Your task to perform on an android device: check the backup settings in the google photos Image 0: 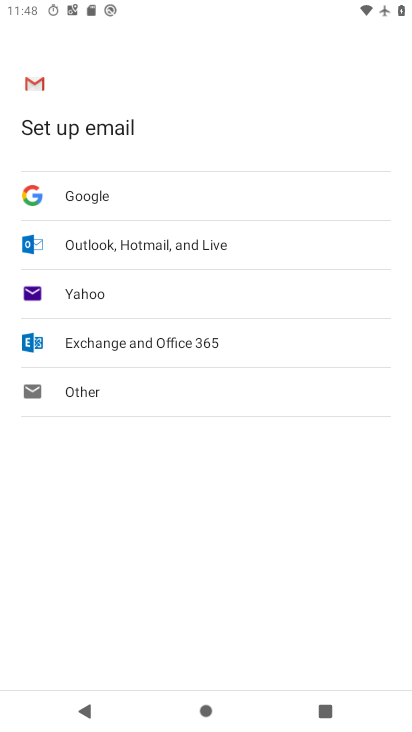
Step 0: press home button
Your task to perform on an android device: check the backup settings in the google photos Image 1: 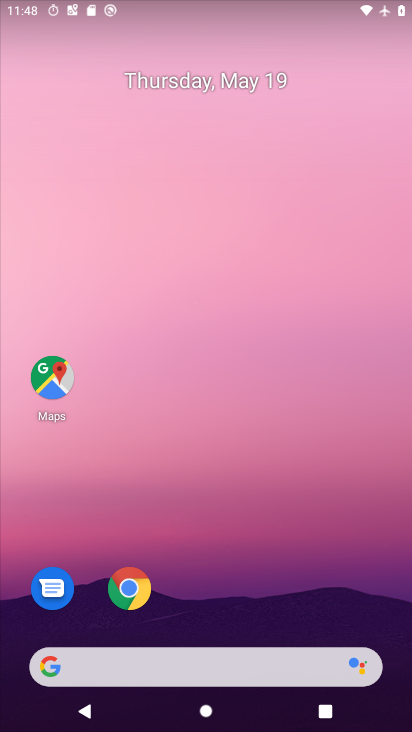
Step 1: drag from (140, 664) to (265, 169)
Your task to perform on an android device: check the backup settings in the google photos Image 2: 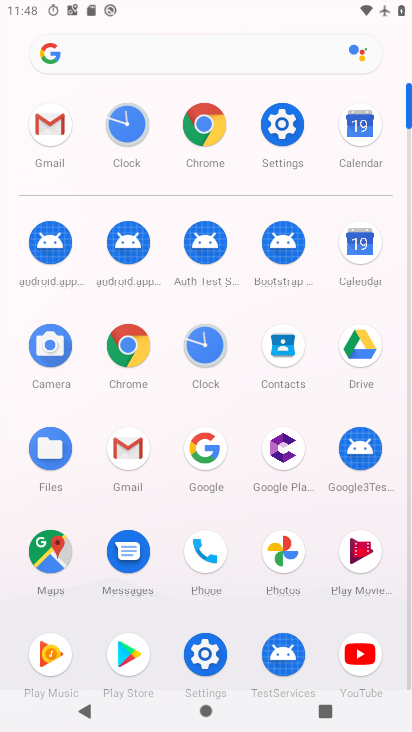
Step 2: click (289, 556)
Your task to perform on an android device: check the backup settings in the google photos Image 3: 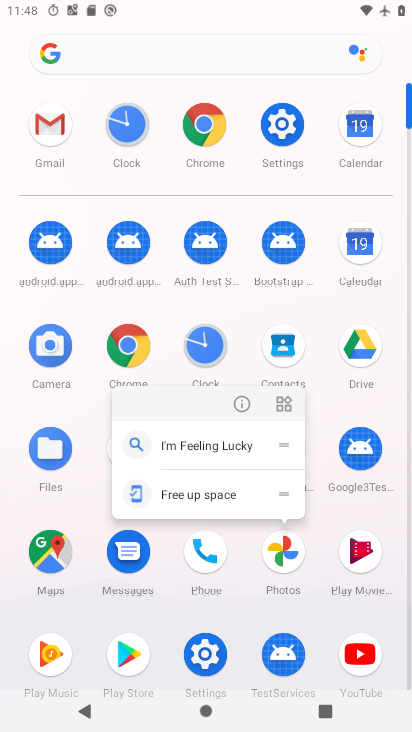
Step 3: click (289, 557)
Your task to perform on an android device: check the backup settings in the google photos Image 4: 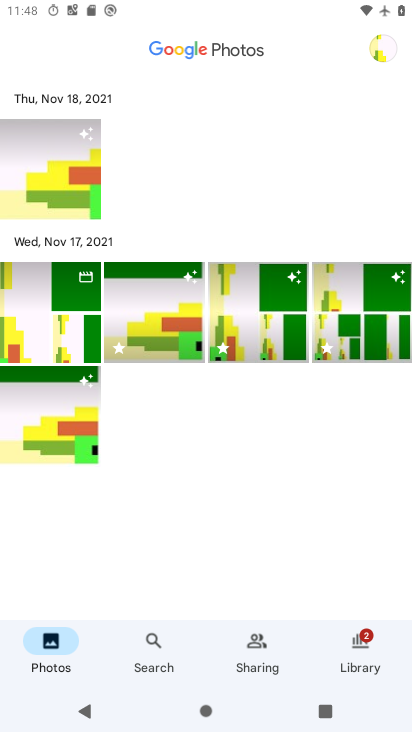
Step 4: click (375, 43)
Your task to perform on an android device: check the backup settings in the google photos Image 5: 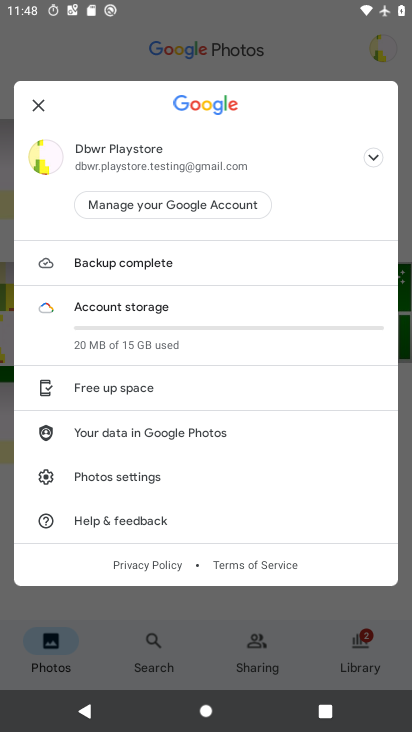
Step 5: click (131, 484)
Your task to perform on an android device: check the backup settings in the google photos Image 6: 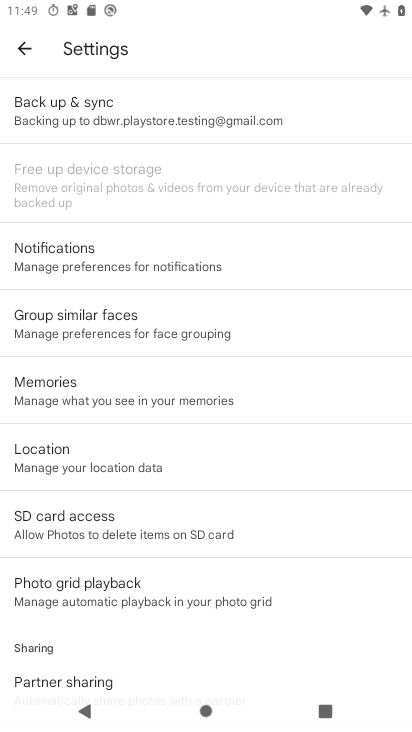
Step 6: click (158, 115)
Your task to perform on an android device: check the backup settings in the google photos Image 7: 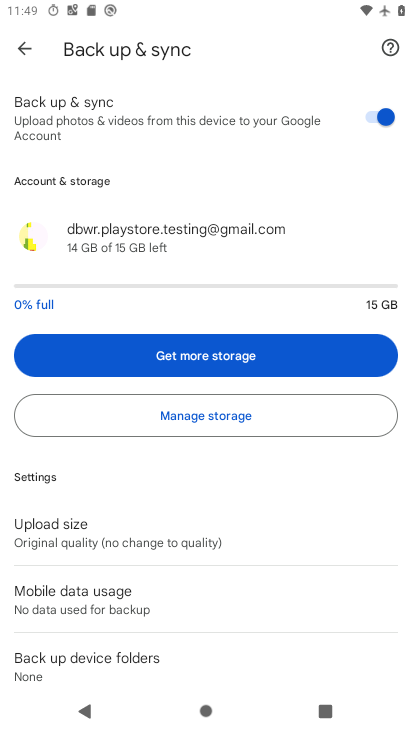
Step 7: task complete